Your task to perform on an android device: Check the weather Image 0: 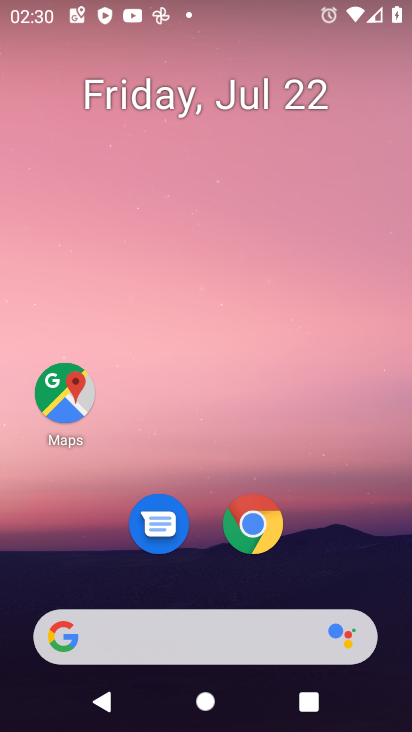
Step 0: press home button
Your task to perform on an android device: Check the weather Image 1: 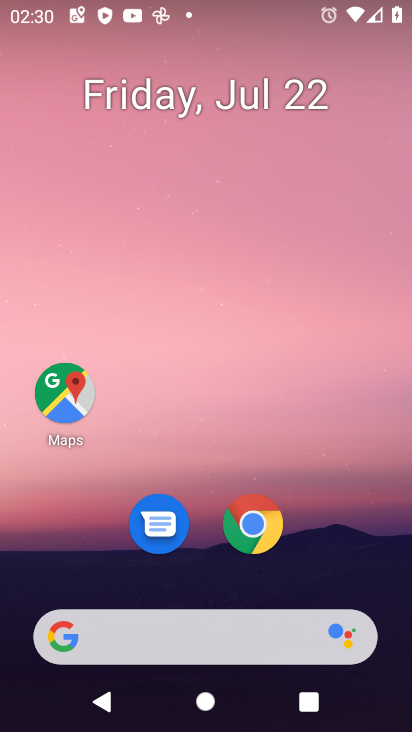
Step 1: drag from (231, 638) to (326, 65)
Your task to perform on an android device: Check the weather Image 2: 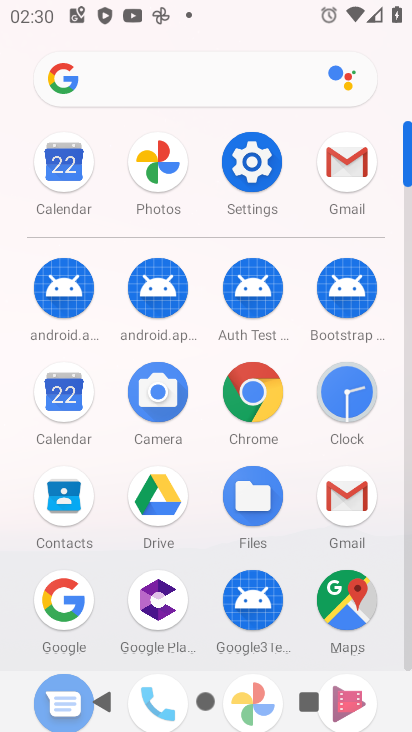
Step 2: click (75, 598)
Your task to perform on an android device: Check the weather Image 3: 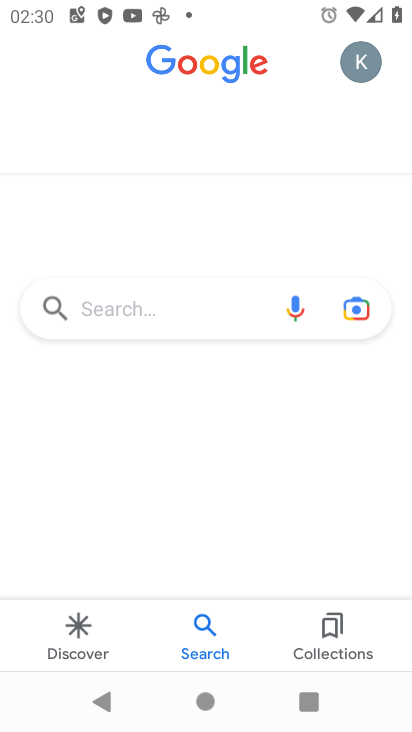
Step 3: click (200, 628)
Your task to perform on an android device: Check the weather Image 4: 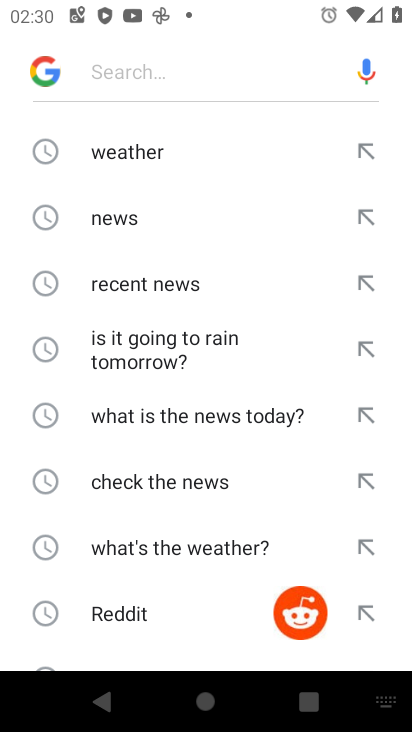
Step 4: click (140, 152)
Your task to perform on an android device: Check the weather Image 5: 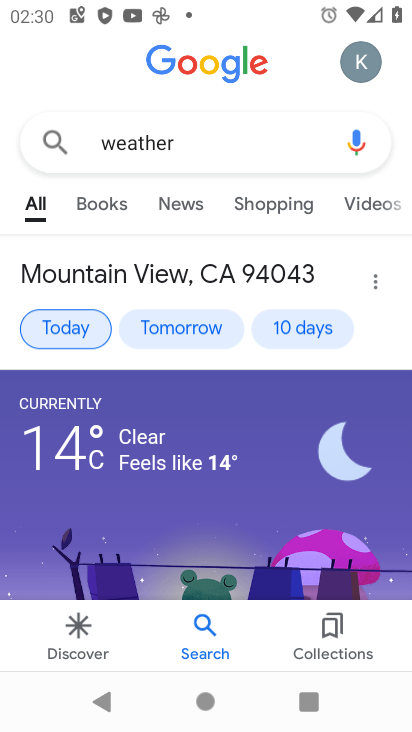
Step 5: task complete